Your task to perform on an android device: Is it going to rain today? Image 0: 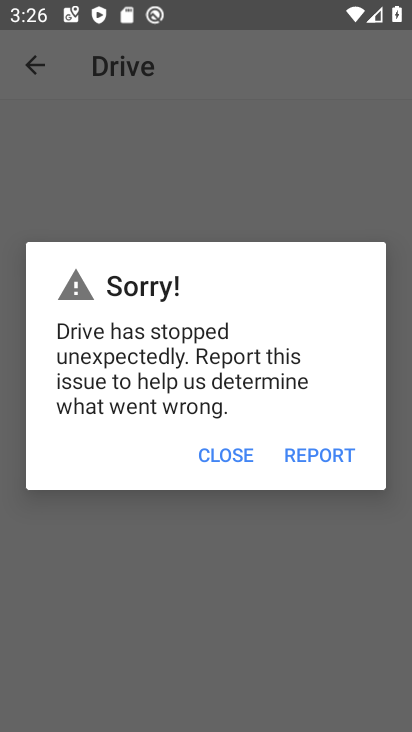
Step 0: press home button
Your task to perform on an android device: Is it going to rain today? Image 1: 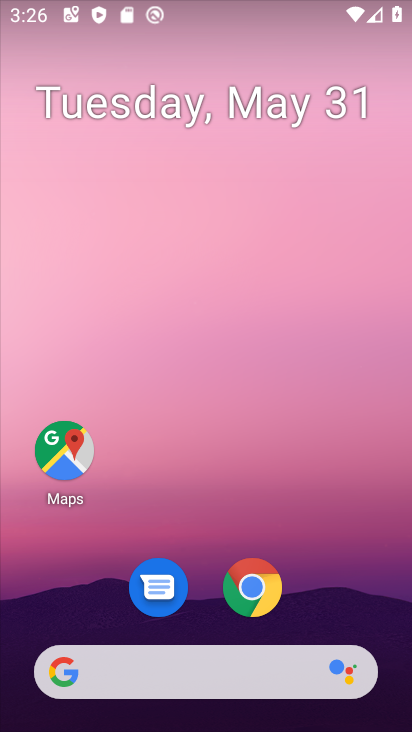
Step 1: click (204, 669)
Your task to perform on an android device: Is it going to rain today? Image 2: 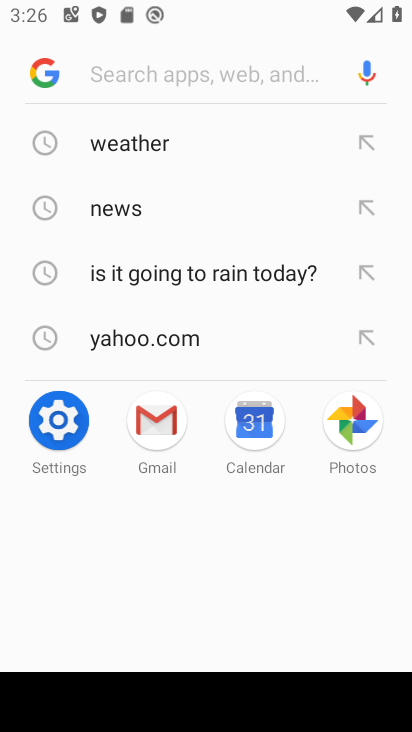
Step 2: type "is it going to rain today"
Your task to perform on an android device: Is it going to rain today? Image 3: 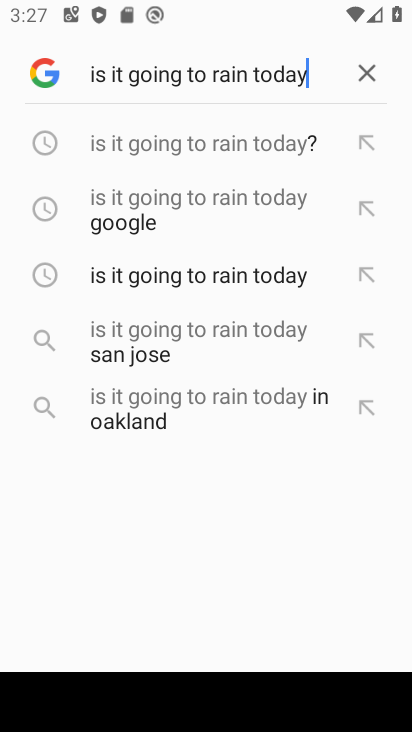
Step 3: click (269, 150)
Your task to perform on an android device: Is it going to rain today? Image 4: 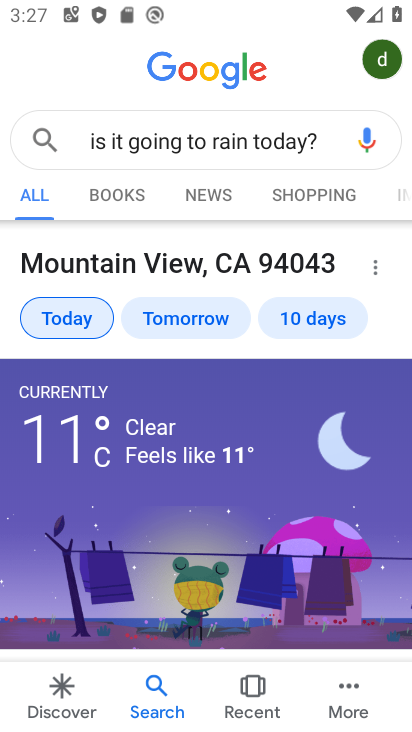
Step 4: task complete